Your task to perform on an android device: stop showing notifications on the lock screen Image 0: 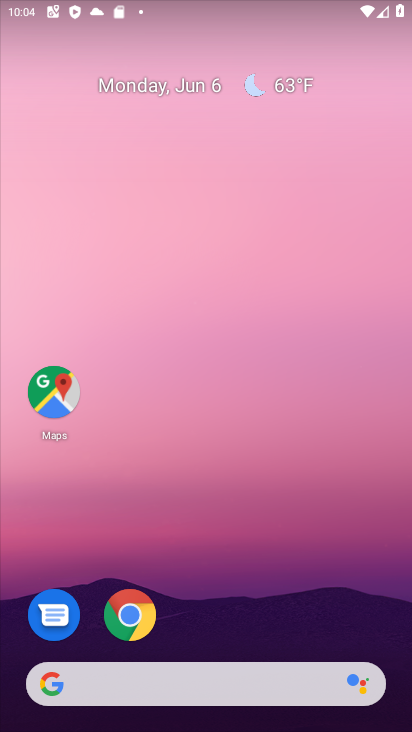
Step 0: drag from (199, 633) to (291, 112)
Your task to perform on an android device: stop showing notifications on the lock screen Image 1: 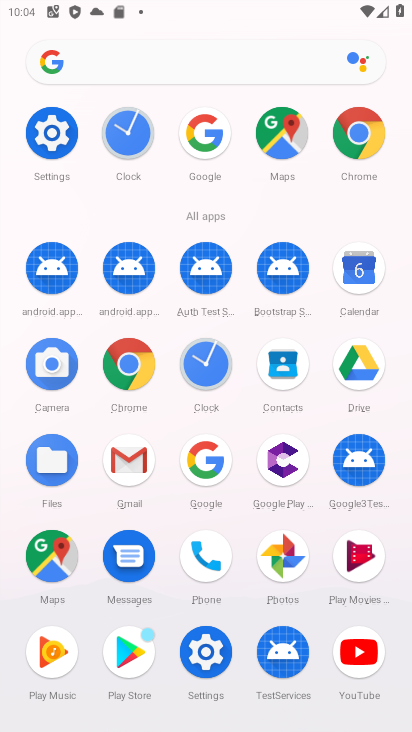
Step 1: click (68, 132)
Your task to perform on an android device: stop showing notifications on the lock screen Image 2: 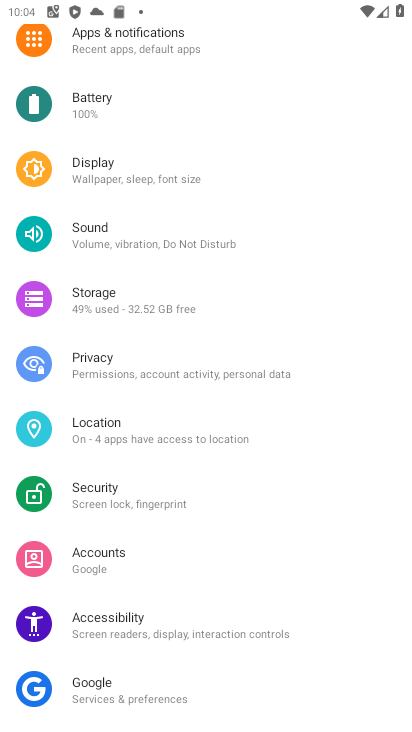
Step 2: click (181, 23)
Your task to perform on an android device: stop showing notifications on the lock screen Image 3: 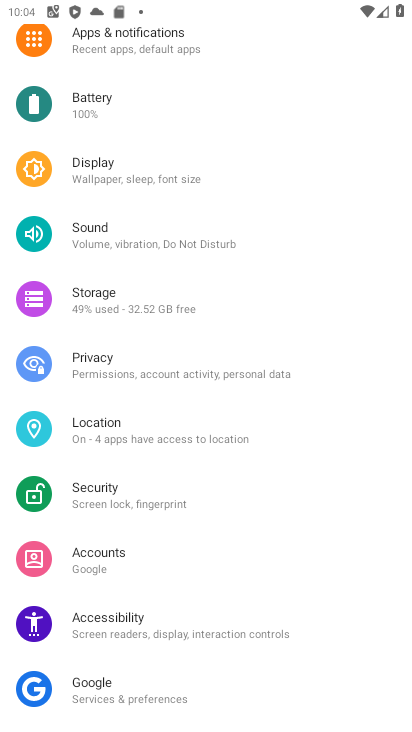
Step 3: click (181, 40)
Your task to perform on an android device: stop showing notifications on the lock screen Image 4: 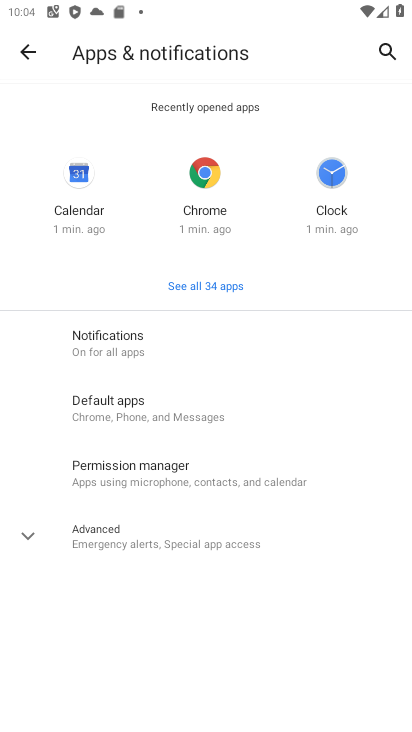
Step 4: click (143, 340)
Your task to perform on an android device: stop showing notifications on the lock screen Image 5: 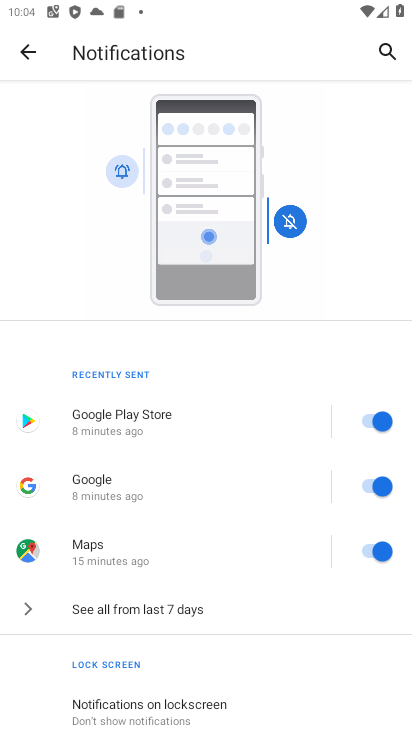
Step 5: click (180, 701)
Your task to perform on an android device: stop showing notifications on the lock screen Image 6: 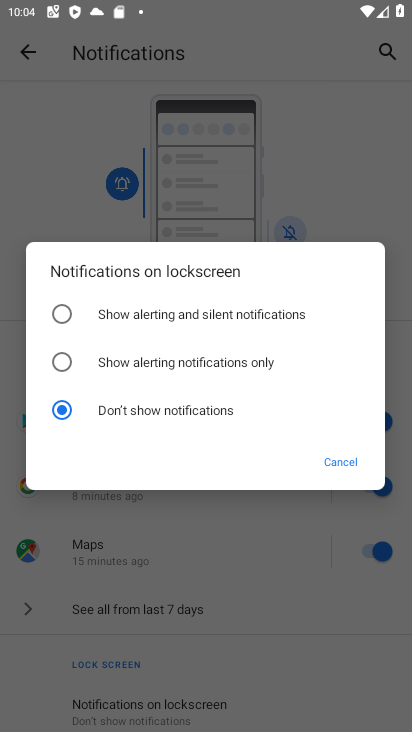
Step 6: task complete